Your task to perform on an android device: Go to settings Image 0: 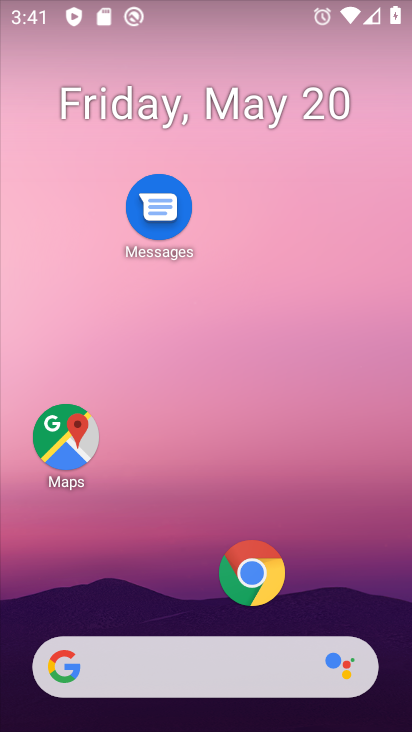
Step 0: drag from (311, 616) to (171, 120)
Your task to perform on an android device: Go to settings Image 1: 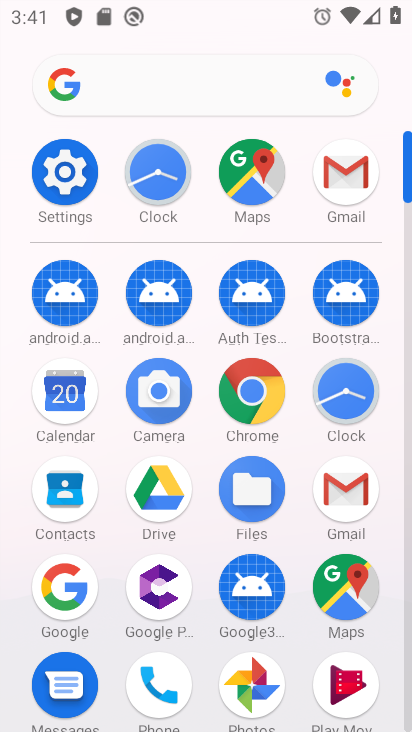
Step 1: click (77, 148)
Your task to perform on an android device: Go to settings Image 2: 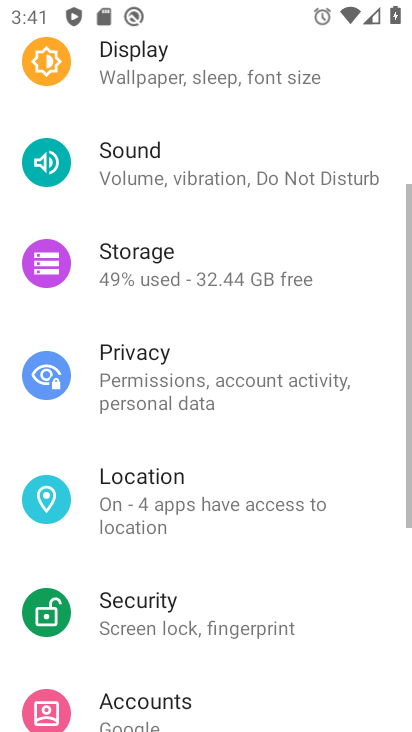
Step 2: task complete